Your task to perform on an android device: Go to wifi settings Image 0: 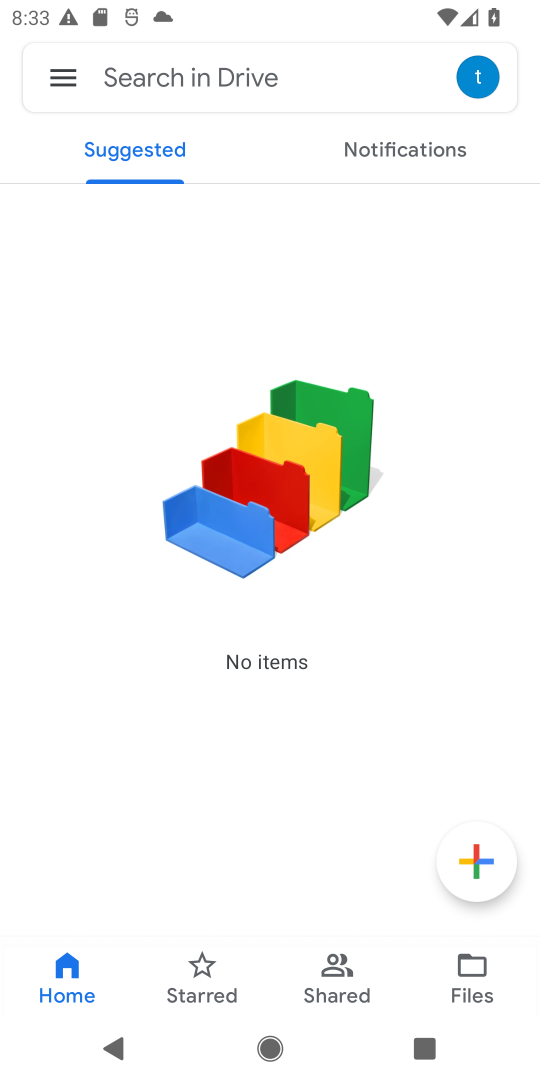
Step 0: press home button
Your task to perform on an android device: Go to wifi settings Image 1: 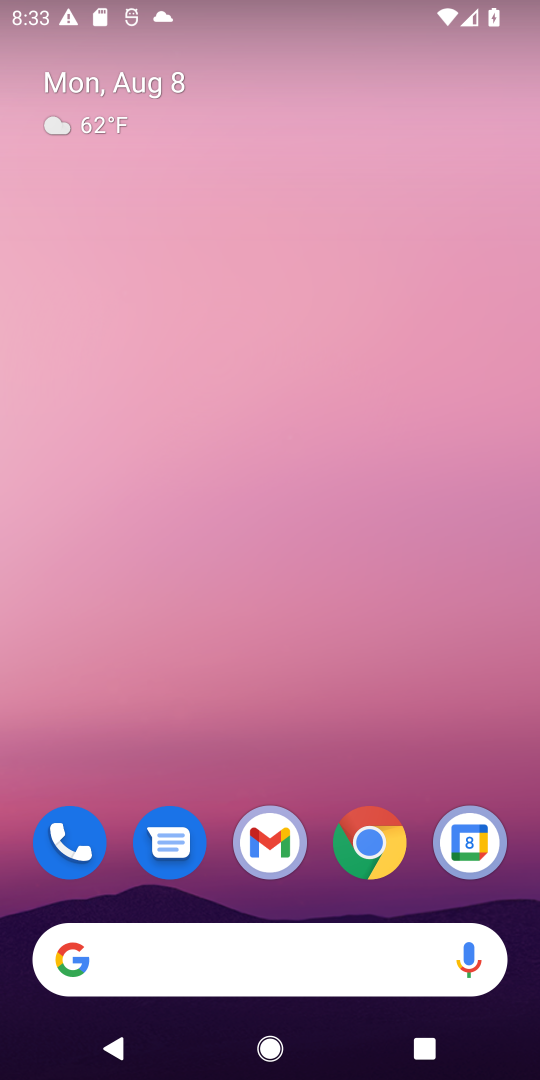
Step 1: drag from (320, 733) to (436, 0)
Your task to perform on an android device: Go to wifi settings Image 2: 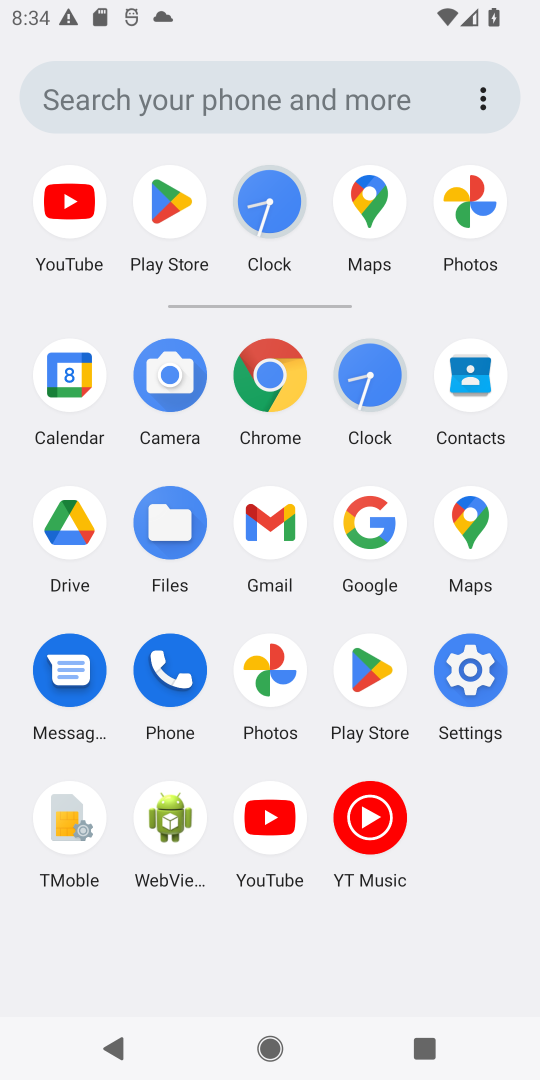
Step 2: click (473, 665)
Your task to perform on an android device: Go to wifi settings Image 3: 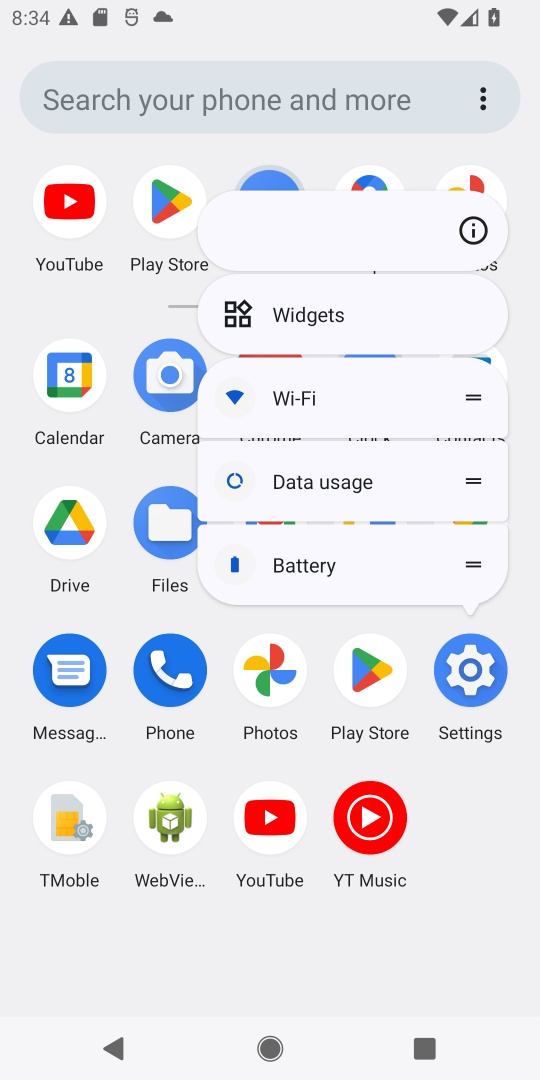
Step 3: click (473, 661)
Your task to perform on an android device: Go to wifi settings Image 4: 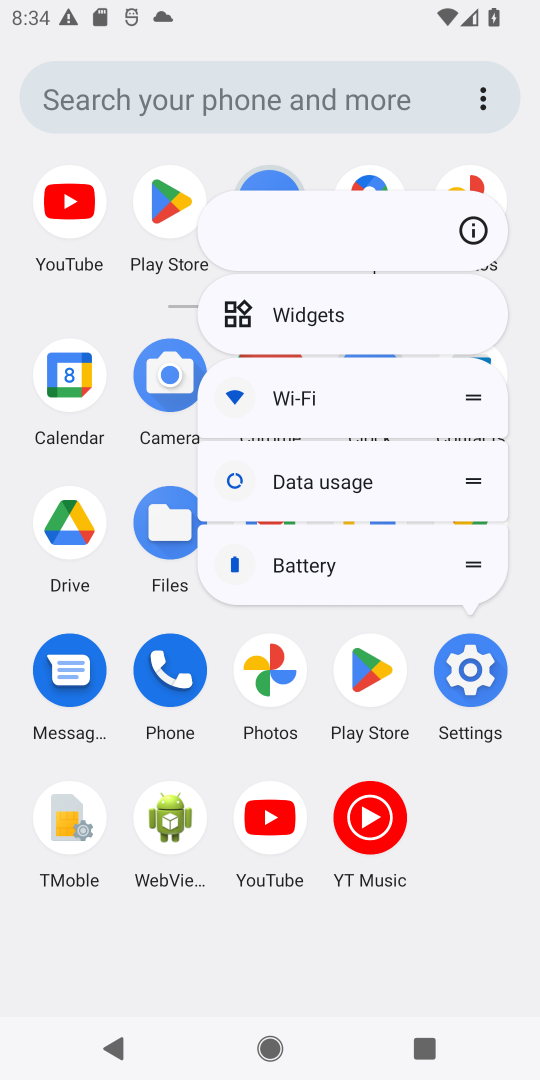
Step 4: click (468, 651)
Your task to perform on an android device: Go to wifi settings Image 5: 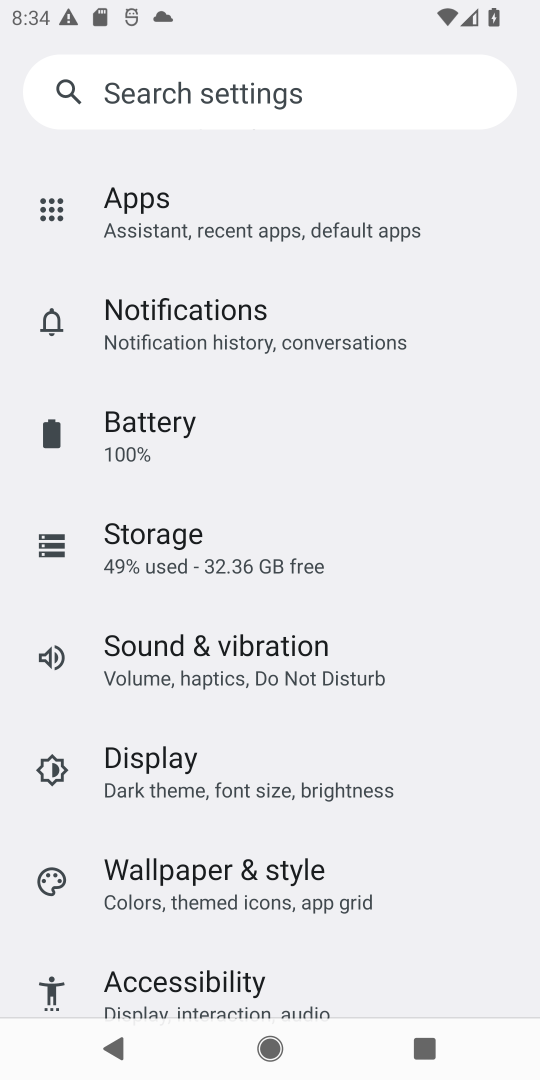
Step 5: drag from (346, 320) to (354, 766)
Your task to perform on an android device: Go to wifi settings Image 6: 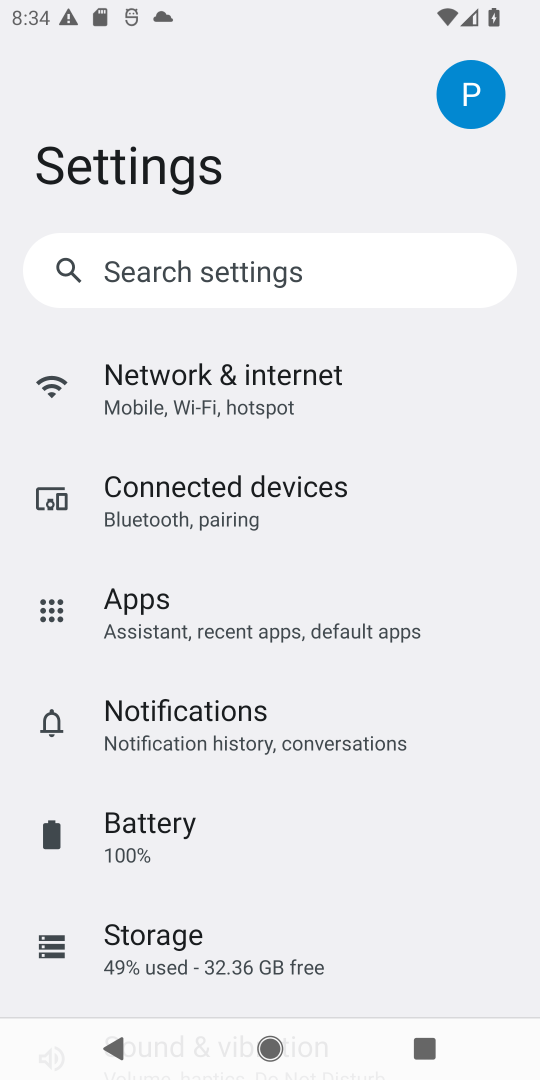
Step 6: click (272, 392)
Your task to perform on an android device: Go to wifi settings Image 7: 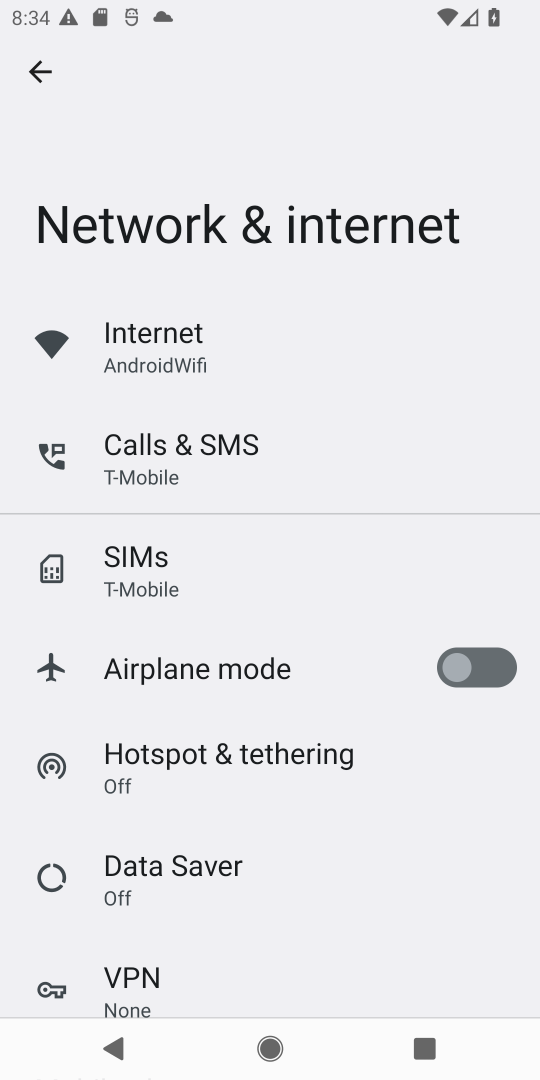
Step 7: click (194, 349)
Your task to perform on an android device: Go to wifi settings Image 8: 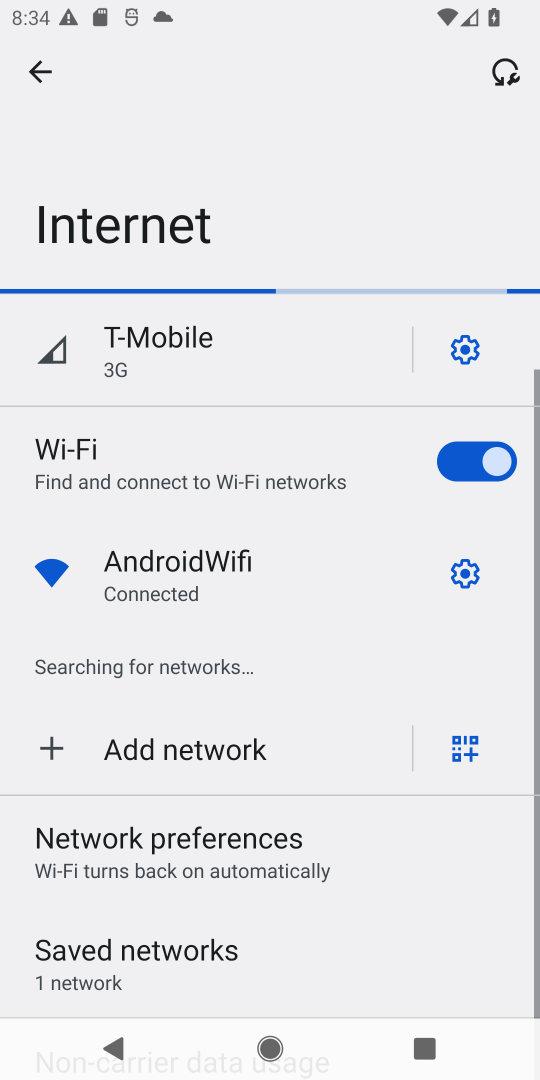
Step 8: task complete